Your task to perform on an android device: Open sound settings Image 0: 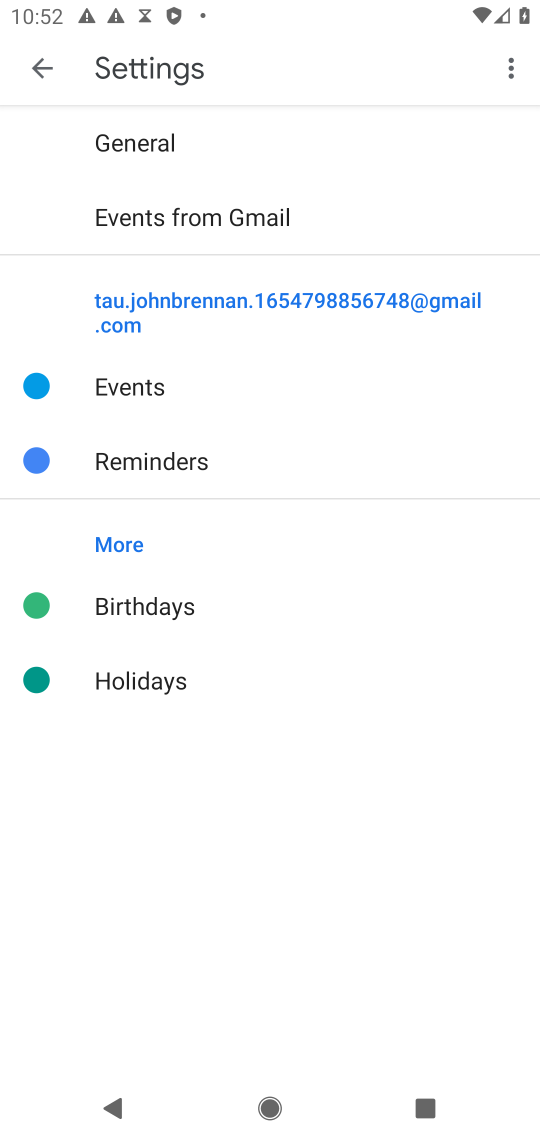
Step 0: press back button
Your task to perform on an android device: Open sound settings Image 1: 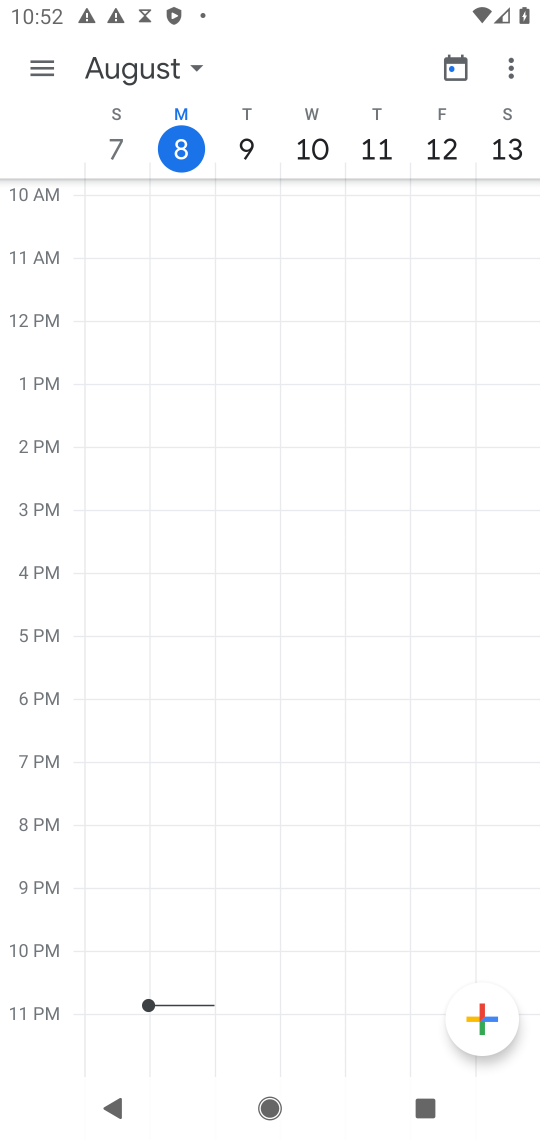
Step 1: press home button
Your task to perform on an android device: Open sound settings Image 2: 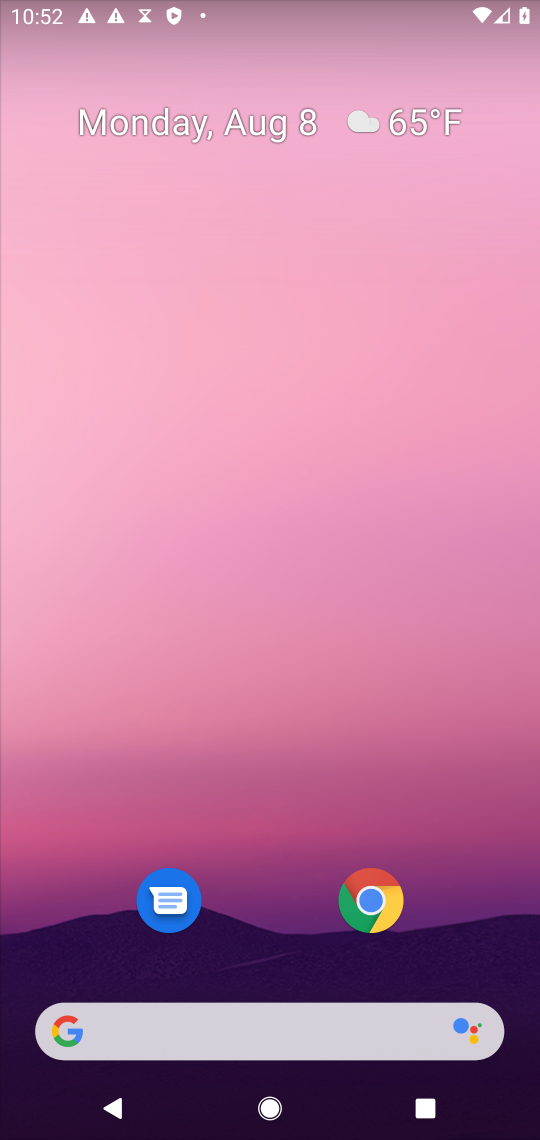
Step 2: drag from (251, 860) to (173, 326)
Your task to perform on an android device: Open sound settings Image 3: 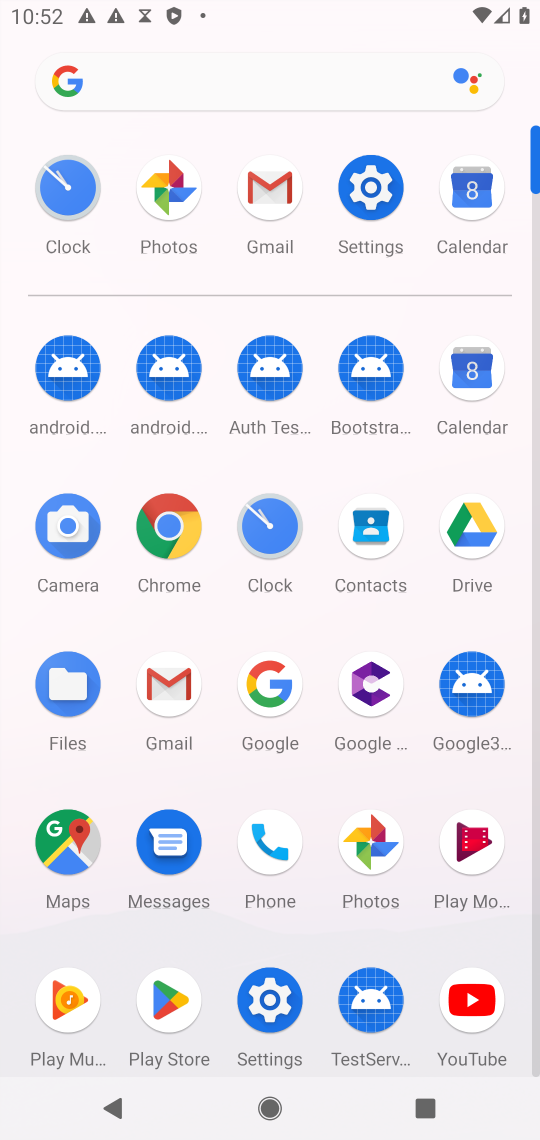
Step 3: click (374, 191)
Your task to perform on an android device: Open sound settings Image 4: 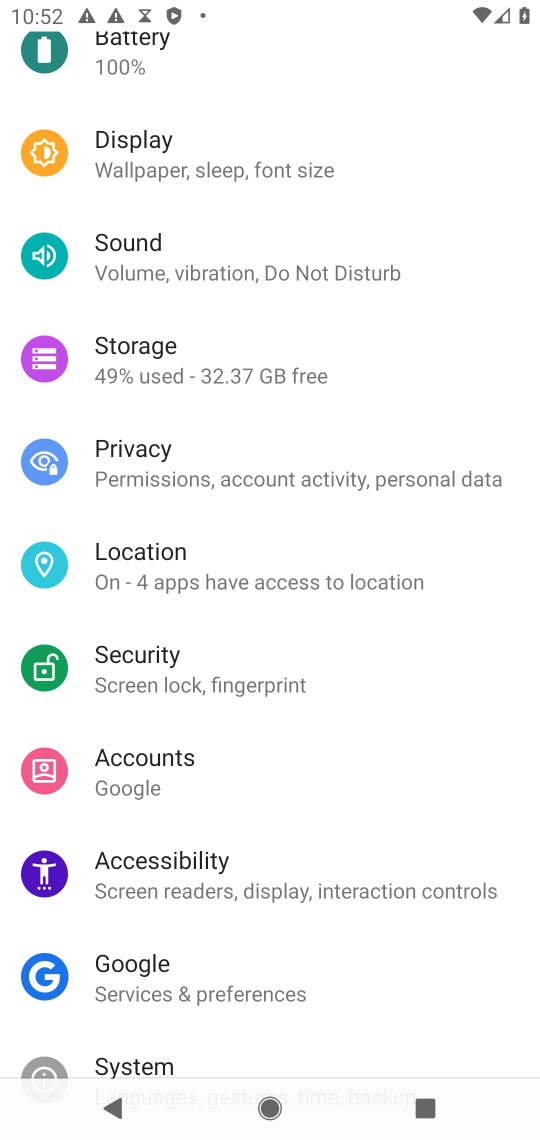
Step 4: click (167, 244)
Your task to perform on an android device: Open sound settings Image 5: 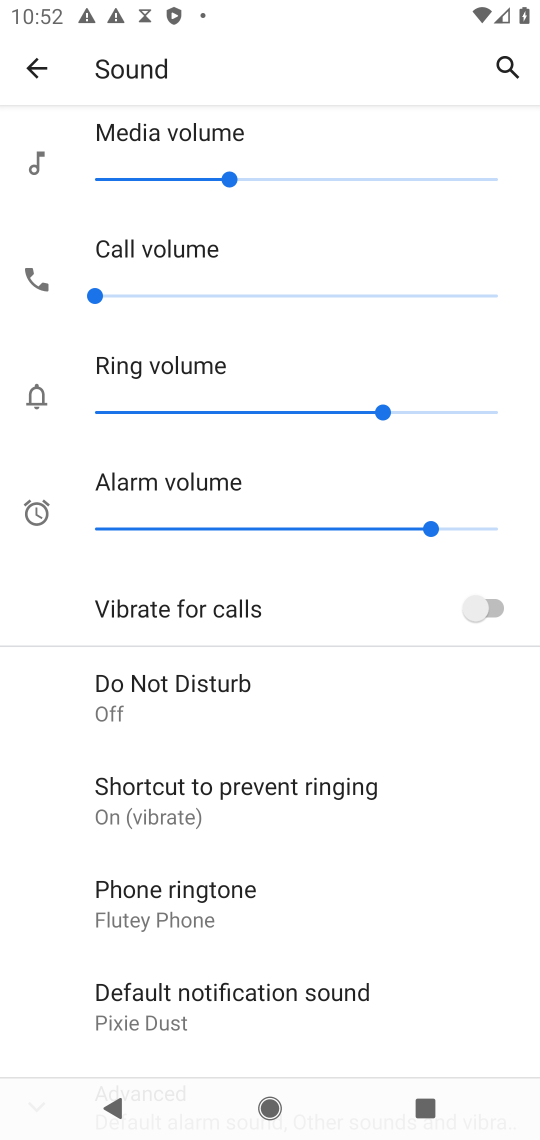
Step 5: task complete